Your task to perform on an android device: toggle notification dots Image 0: 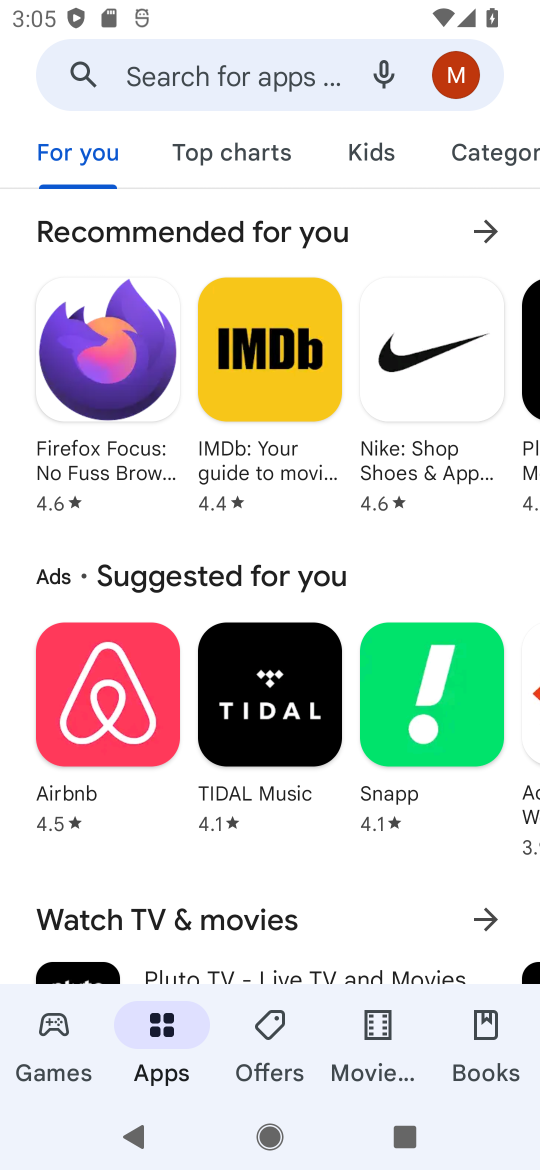
Step 0: press home button
Your task to perform on an android device: toggle notification dots Image 1: 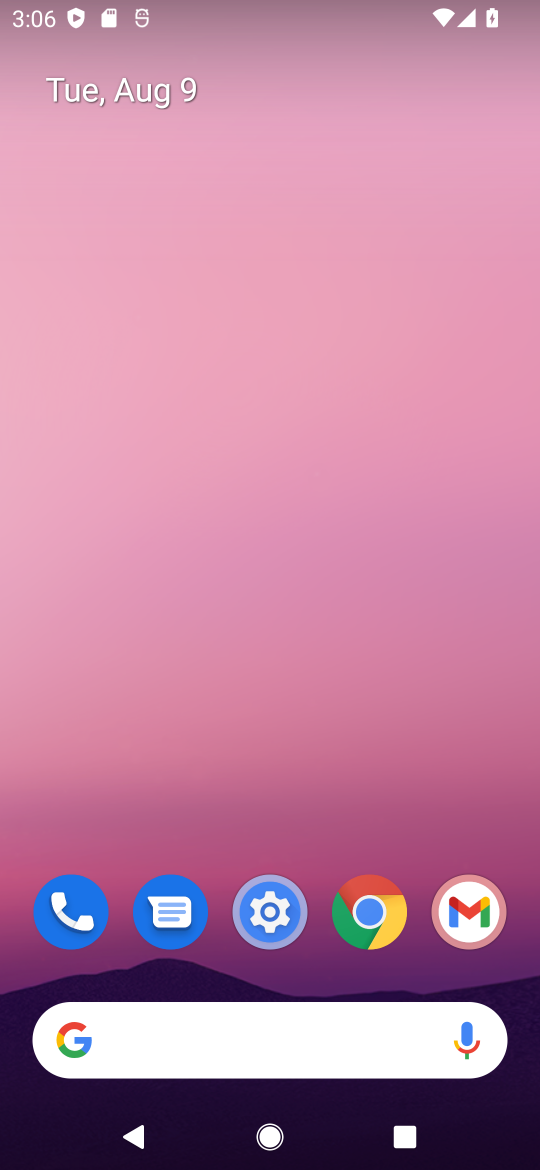
Step 1: click (266, 904)
Your task to perform on an android device: toggle notification dots Image 2: 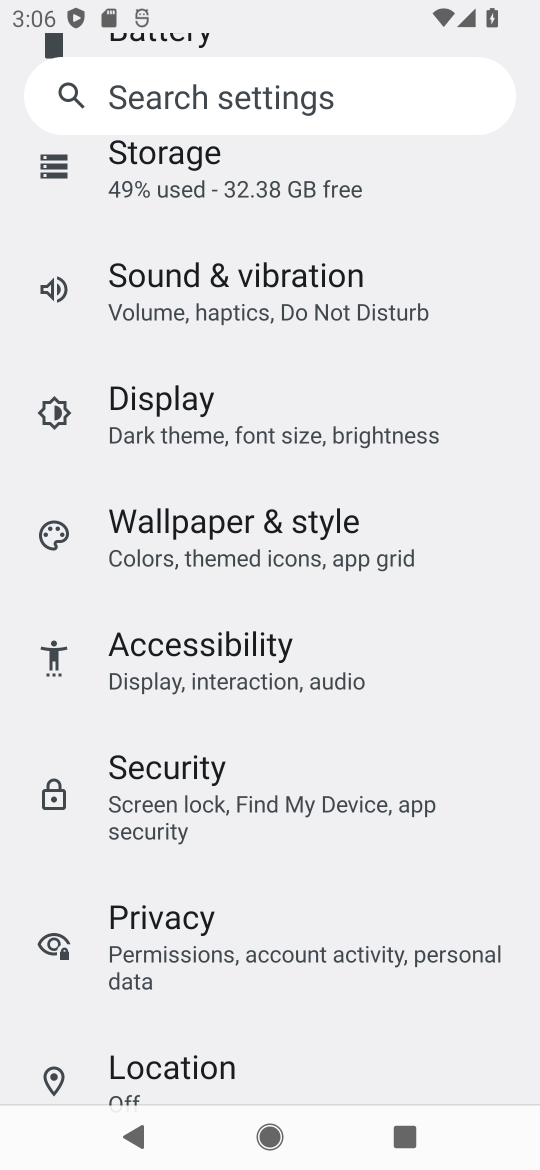
Step 2: drag from (365, 232) to (364, 750)
Your task to perform on an android device: toggle notification dots Image 3: 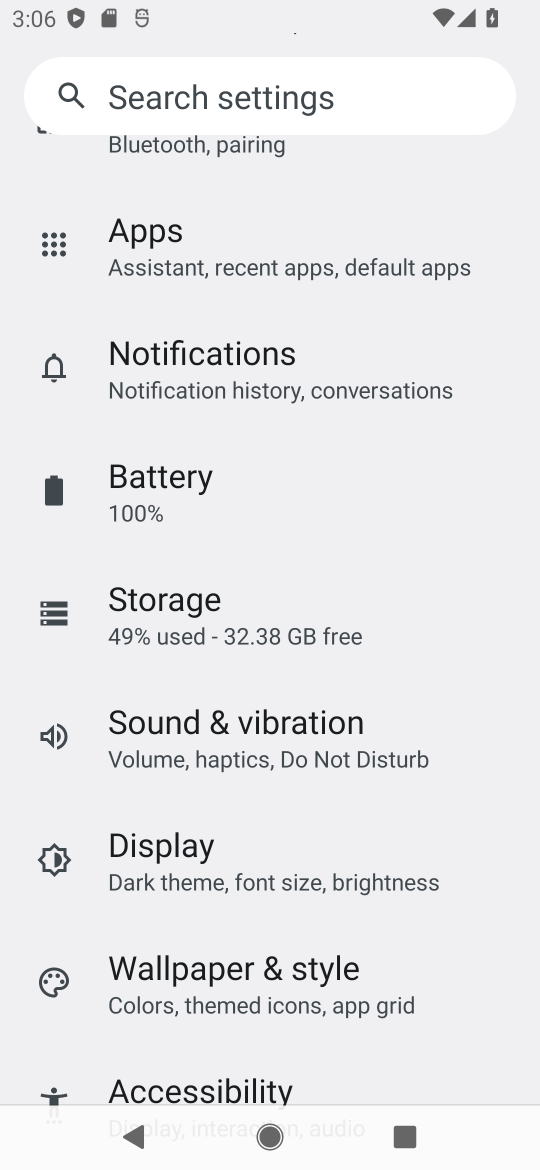
Step 3: click (210, 359)
Your task to perform on an android device: toggle notification dots Image 4: 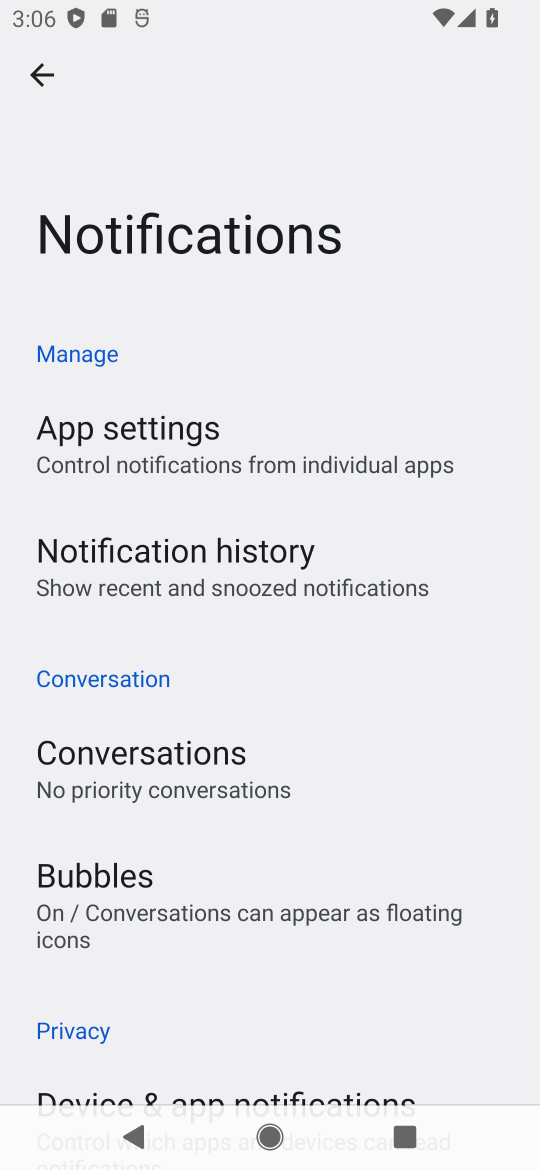
Step 4: drag from (337, 800) to (342, 258)
Your task to perform on an android device: toggle notification dots Image 5: 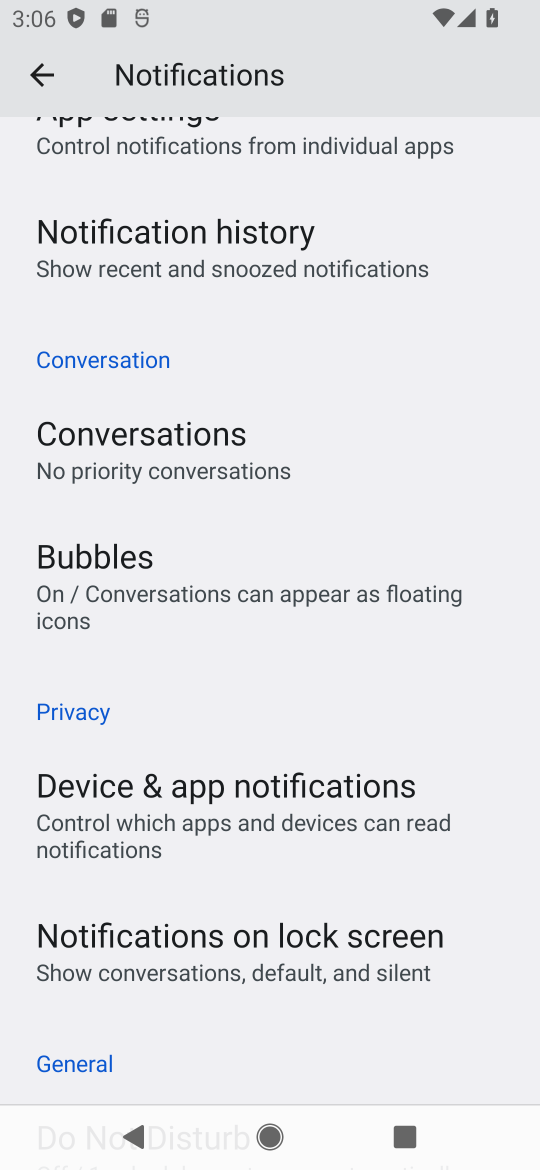
Step 5: drag from (375, 874) to (375, 394)
Your task to perform on an android device: toggle notification dots Image 6: 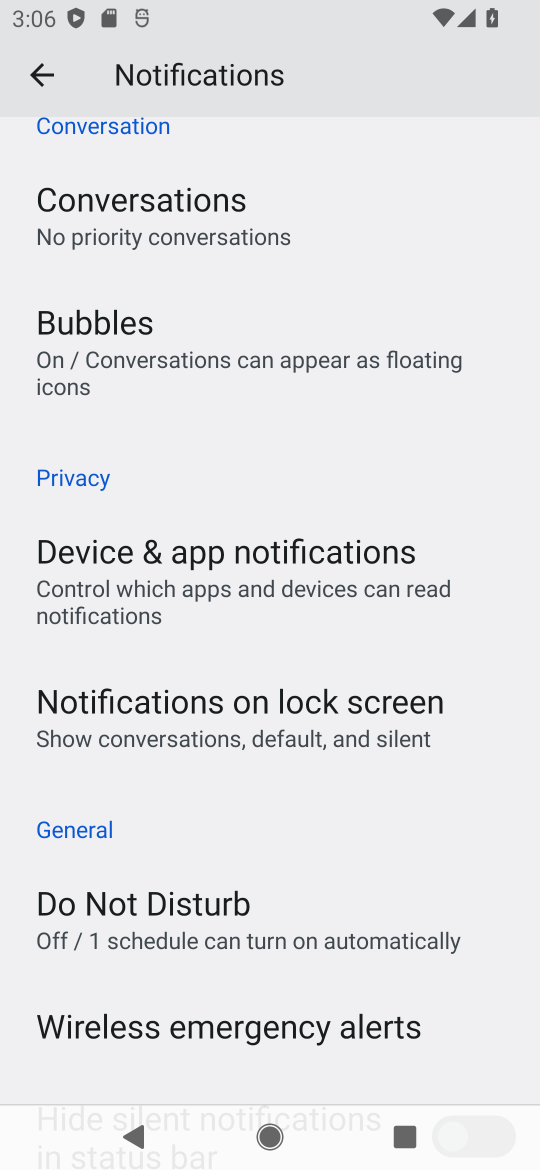
Step 6: drag from (399, 817) to (375, 223)
Your task to perform on an android device: toggle notification dots Image 7: 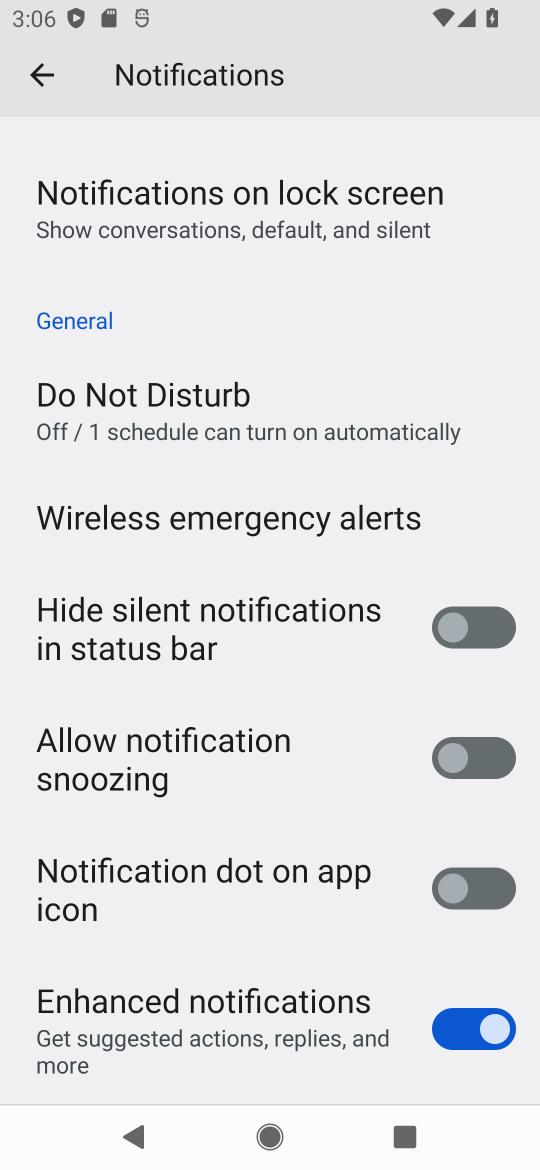
Step 7: click (468, 891)
Your task to perform on an android device: toggle notification dots Image 8: 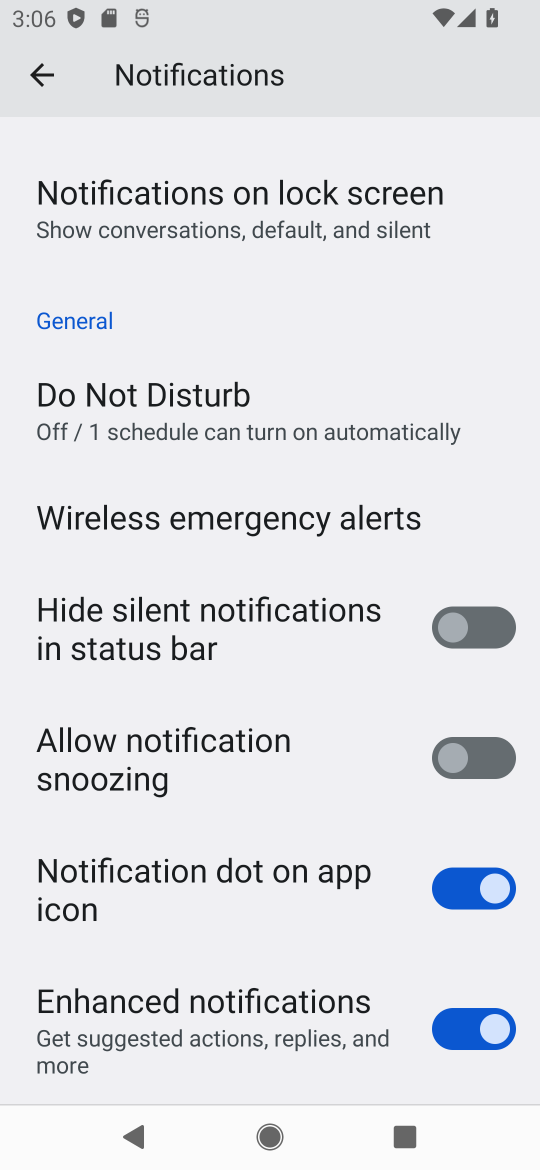
Step 8: task complete